Your task to perform on an android device: Go to calendar. Show me events next week Image 0: 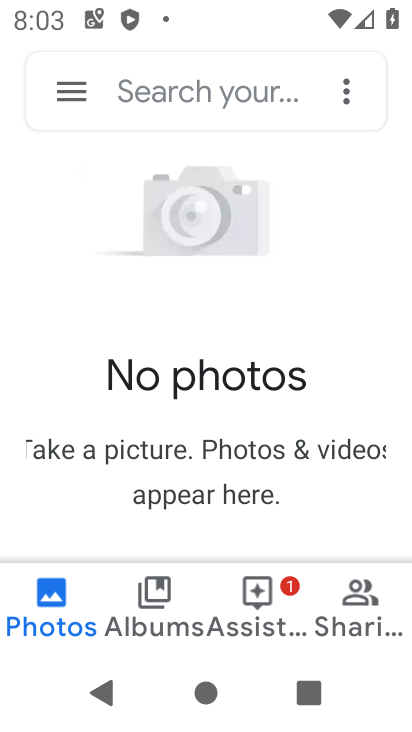
Step 0: press home button
Your task to perform on an android device: Go to calendar. Show me events next week Image 1: 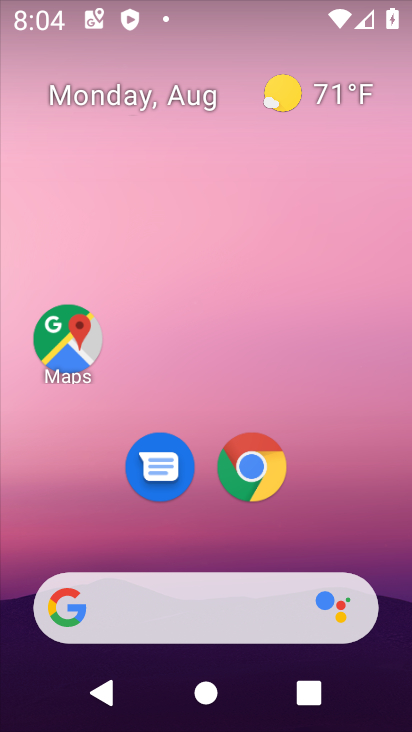
Step 1: drag from (350, 541) to (367, 245)
Your task to perform on an android device: Go to calendar. Show me events next week Image 2: 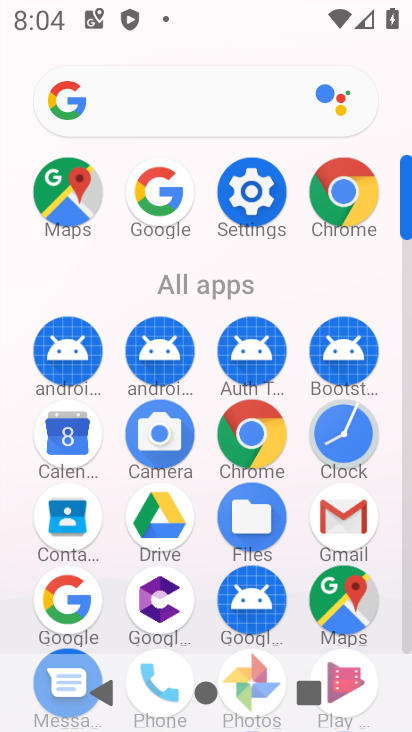
Step 2: click (71, 444)
Your task to perform on an android device: Go to calendar. Show me events next week Image 3: 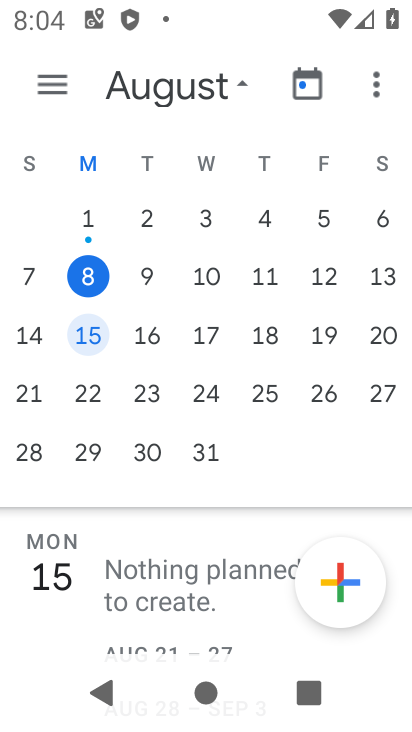
Step 3: task complete